Your task to perform on an android device: turn on translation in the chrome app Image 0: 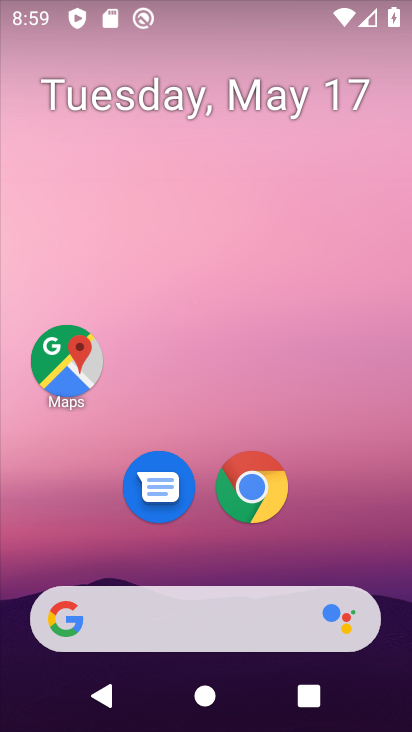
Step 0: press home button
Your task to perform on an android device: turn on translation in the chrome app Image 1: 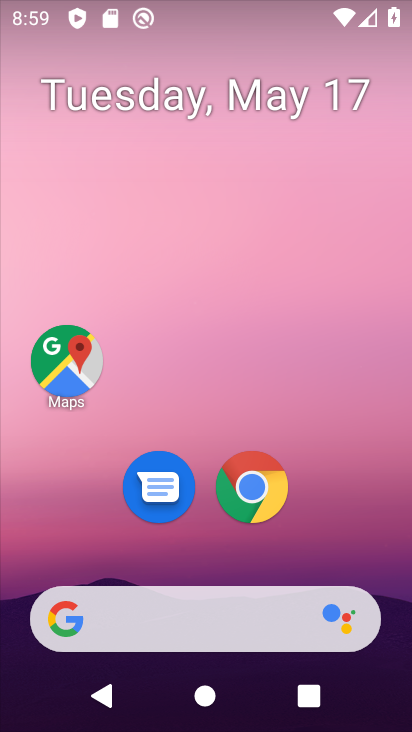
Step 1: drag from (258, 658) to (215, 326)
Your task to perform on an android device: turn on translation in the chrome app Image 2: 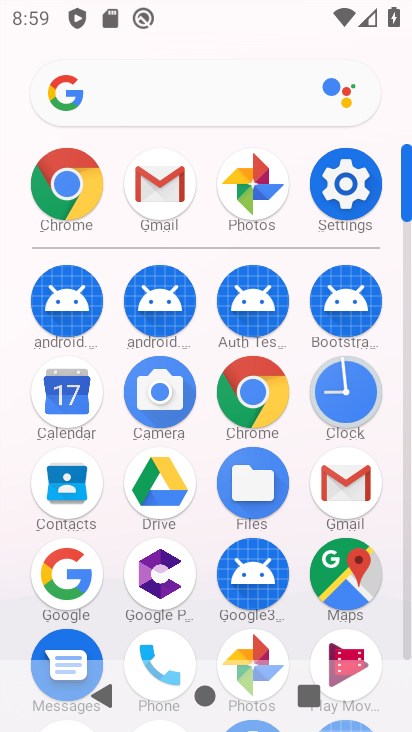
Step 2: click (66, 212)
Your task to perform on an android device: turn on translation in the chrome app Image 3: 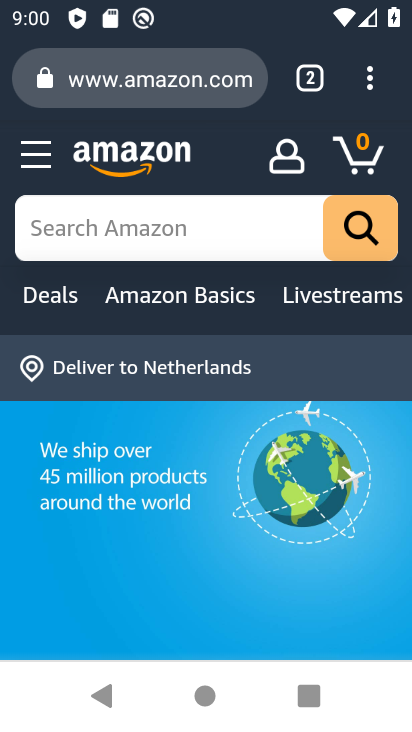
Step 3: click (376, 93)
Your task to perform on an android device: turn on translation in the chrome app Image 4: 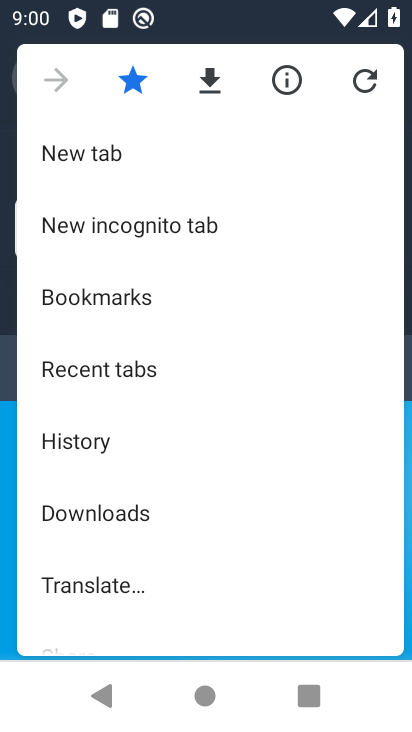
Step 4: drag from (253, 454) to (274, 215)
Your task to perform on an android device: turn on translation in the chrome app Image 5: 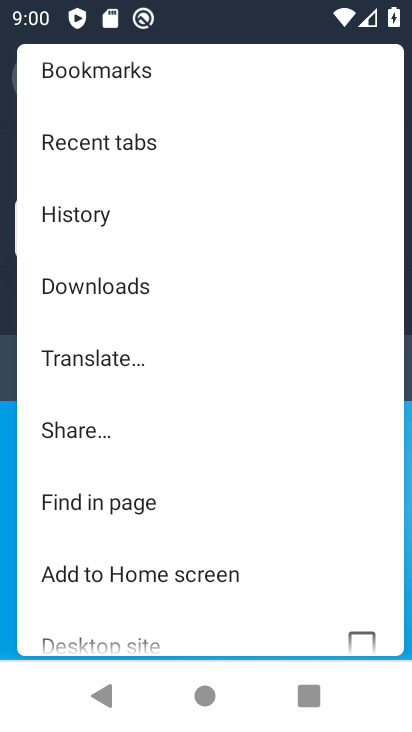
Step 5: drag from (212, 519) to (223, 403)
Your task to perform on an android device: turn on translation in the chrome app Image 6: 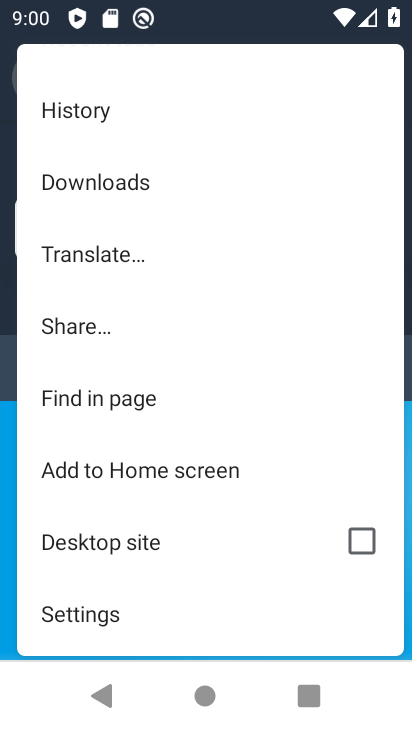
Step 6: click (111, 581)
Your task to perform on an android device: turn on translation in the chrome app Image 7: 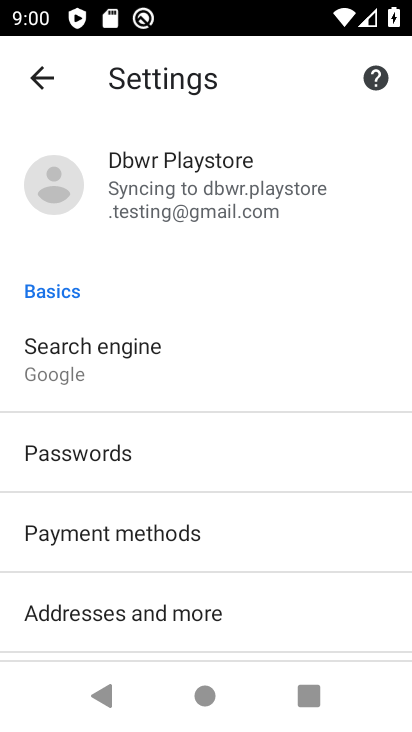
Step 7: drag from (143, 593) to (179, 286)
Your task to perform on an android device: turn on translation in the chrome app Image 8: 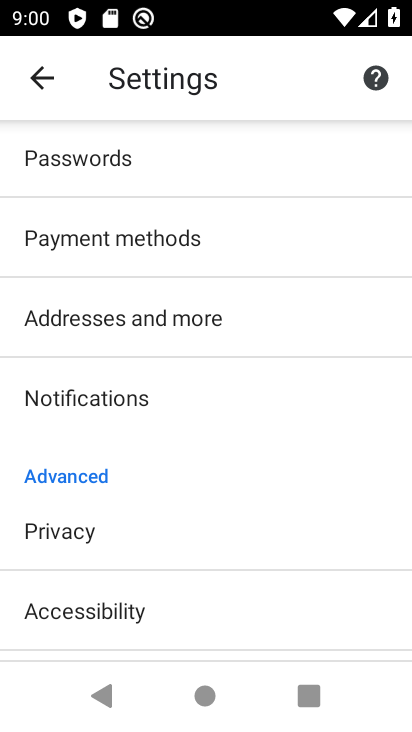
Step 8: drag from (193, 545) to (214, 259)
Your task to perform on an android device: turn on translation in the chrome app Image 9: 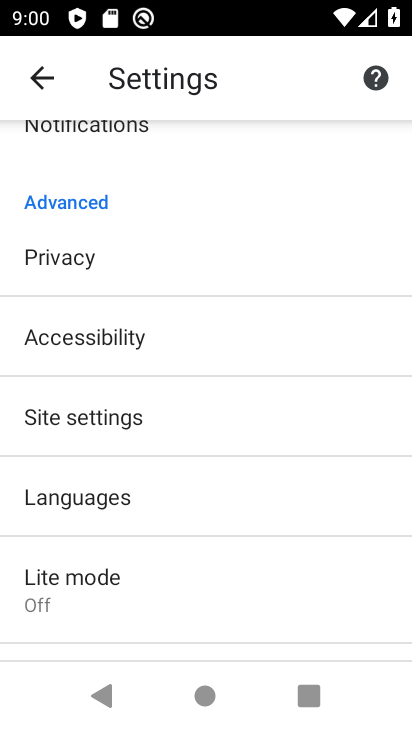
Step 9: click (111, 504)
Your task to perform on an android device: turn on translation in the chrome app Image 10: 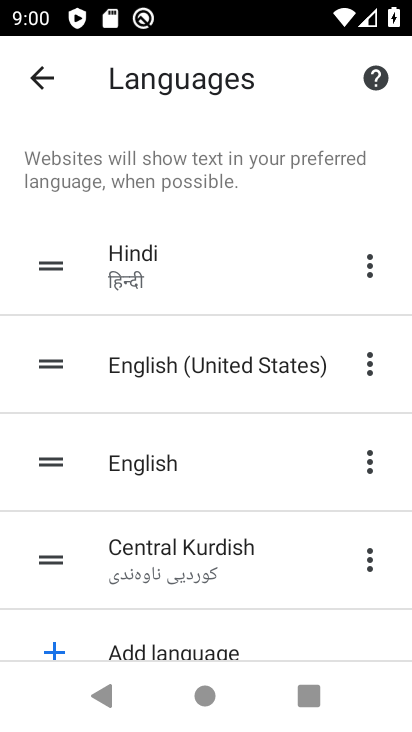
Step 10: drag from (192, 587) to (230, 221)
Your task to perform on an android device: turn on translation in the chrome app Image 11: 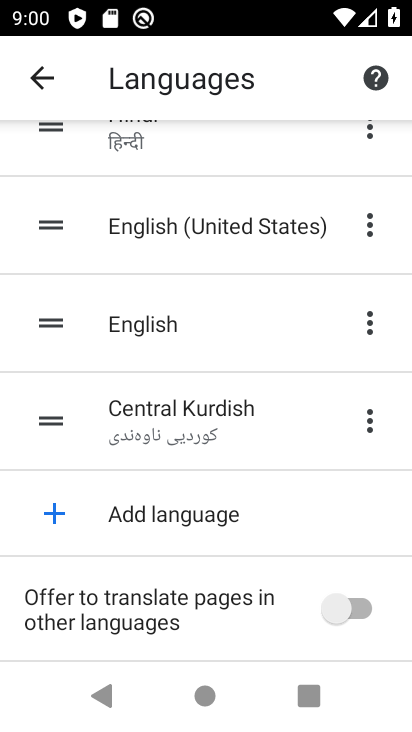
Step 11: click (192, 586)
Your task to perform on an android device: turn on translation in the chrome app Image 12: 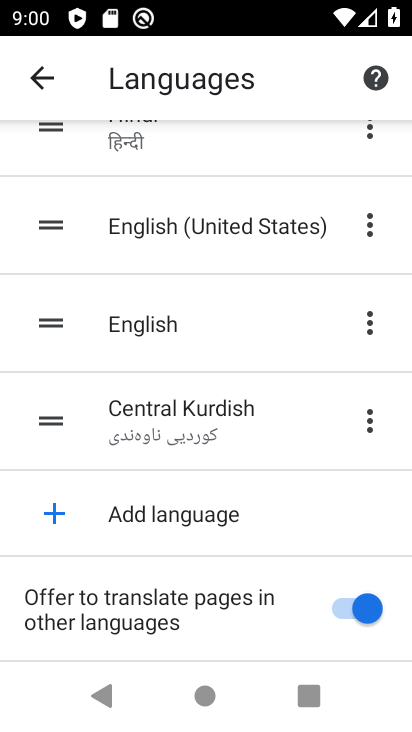
Step 12: task complete